Your task to perform on an android device: turn notification dots off Image 0: 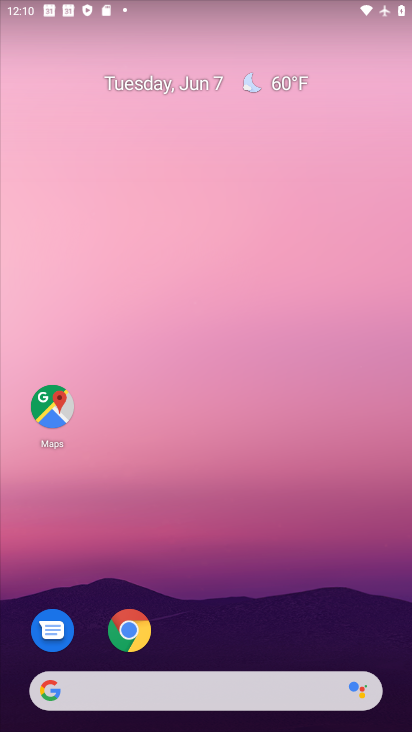
Step 0: drag from (366, 643) to (275, 67)
Your task to perform on an android device: turn notification dots off Image 1: 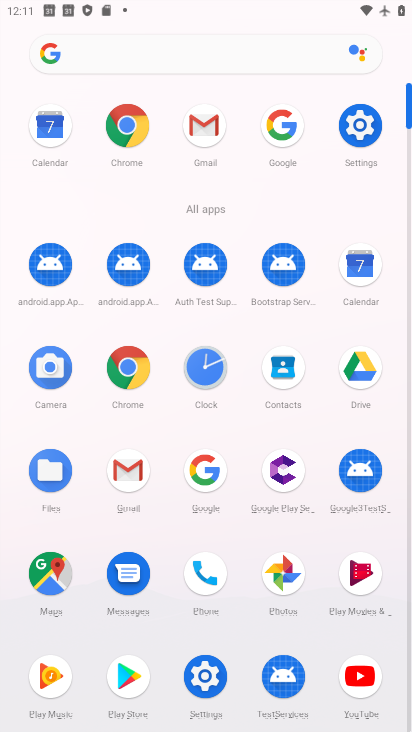
Step 1: click (202, 670)
Your task to perform on an android device: turn notification dots off Image 2: 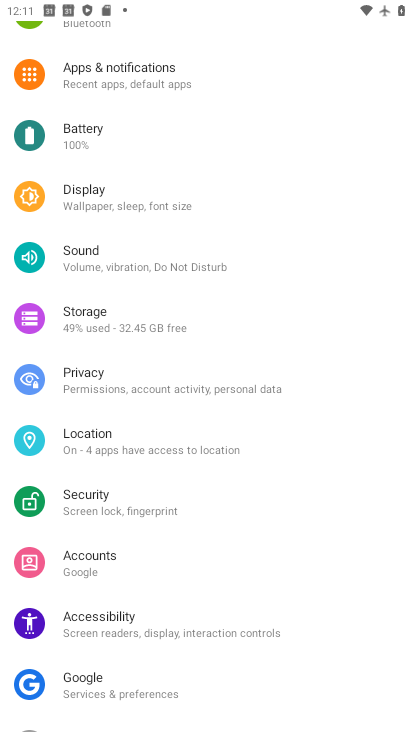
Step 2: click (163, 96)
Your task to perform on an android device: turn notification dots off Image 3: 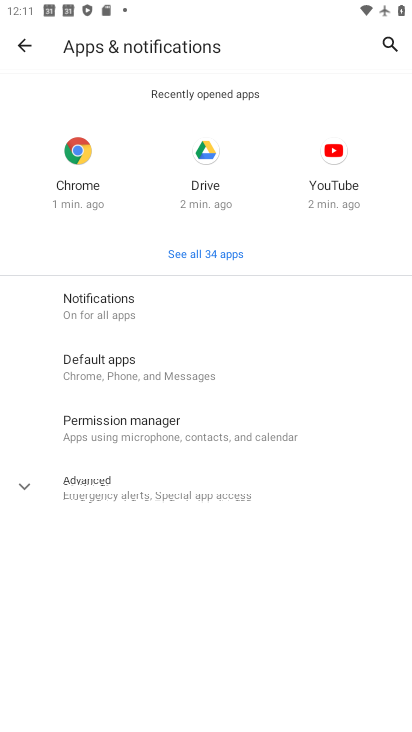
Step 3: click (187, 300)
Your task to perform on an android device: turn notification dots off Image 4: 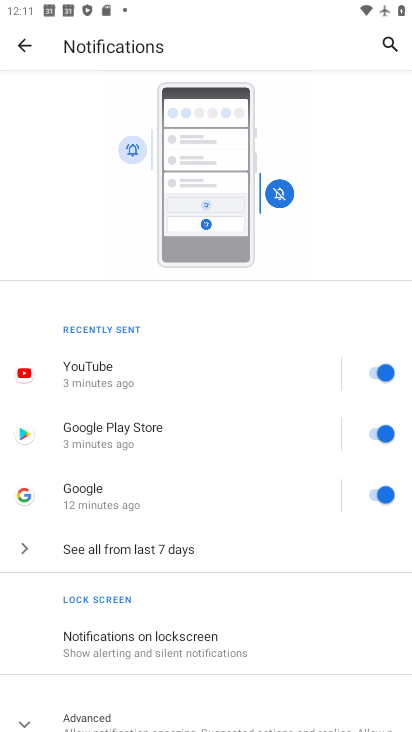
Step 4: drag from (139, 718) to (198, 173)
Your task to perform on an android device: turn notification dots off Image 5: 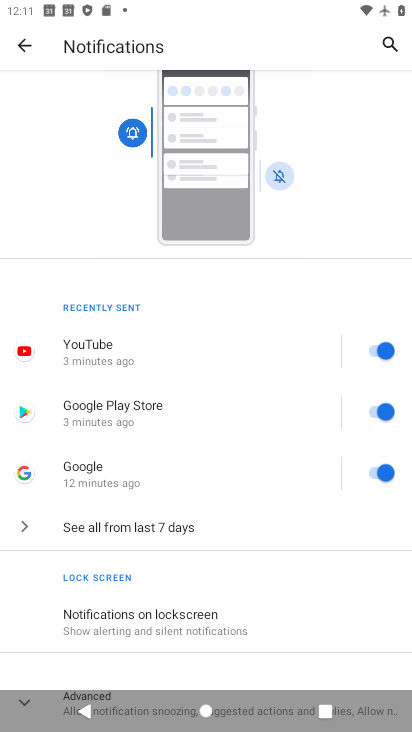
Step 5: click (160, 676)
Your task to perform on an android device: turn notification dots off Image 6: 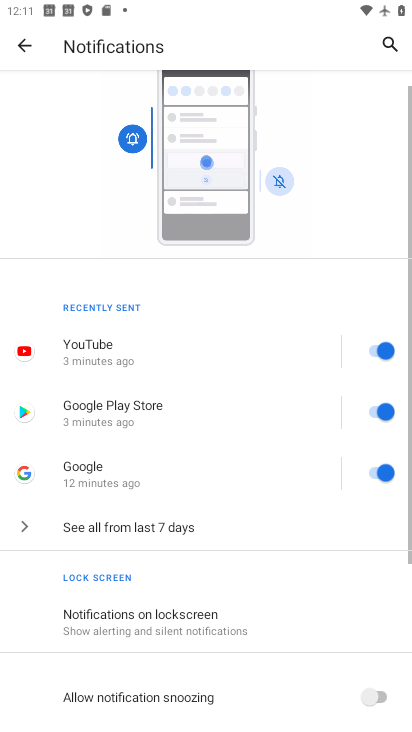
Step 6: task complete